Your task to perform on an android device: see tabs open on other devices in the chrome app Image 0: 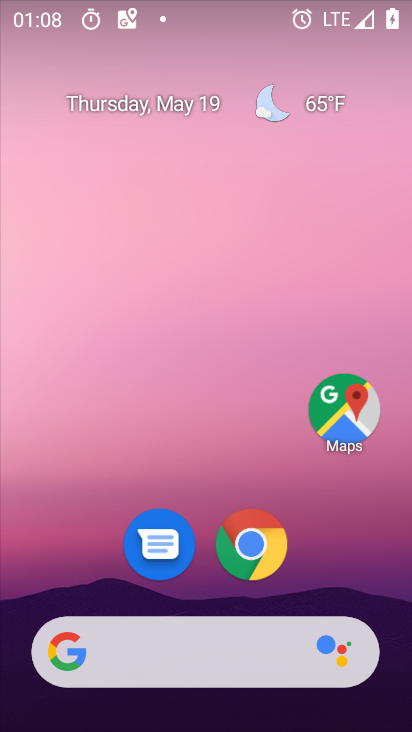
Step 0: drag from (374, 582) to (367, 201)
Your task to perform on an android device: see tabs open on other devices in the chrome app Image 1: 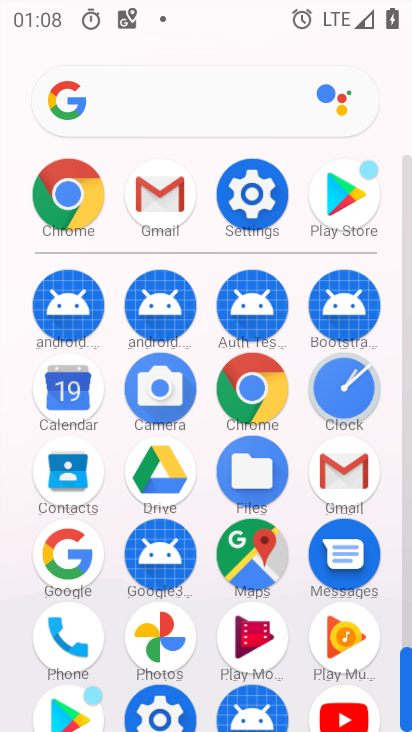
Step 1: drag from (291, 536) to (287, 270)
Your task to perform on an android device: see tabs open on other devices in the chrome app Image 2: 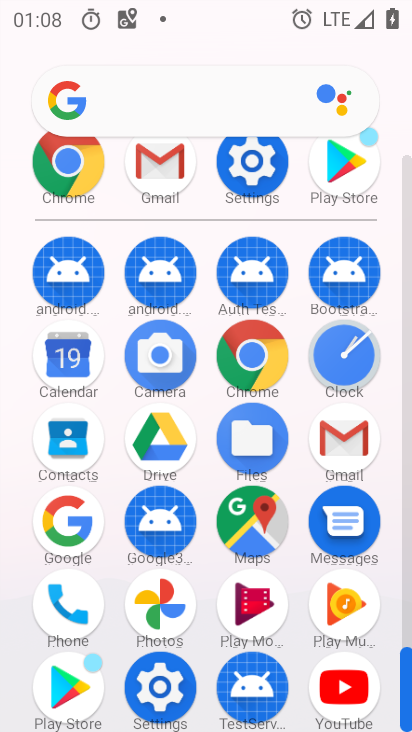
Step 2: drag from (300, 271) to (288, 381)
Your task to perform on an android device: see tabs open on other devices in the chrome app Image 3: 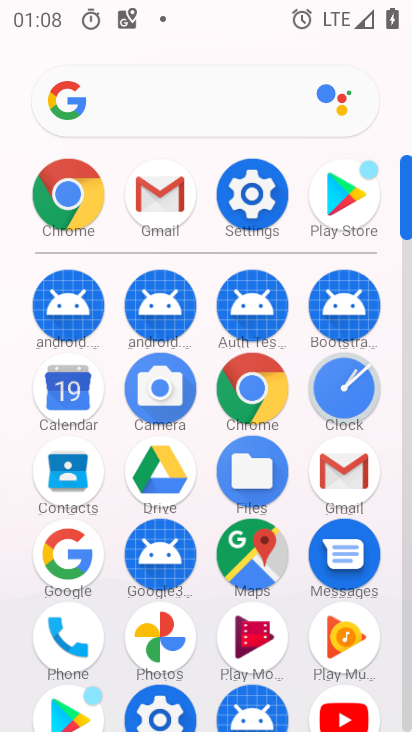
Step 3: drag from (293, 591) to (295, 455)
Your task to perform on an android device: see tabs open on other devices in the chrome app Image 4: 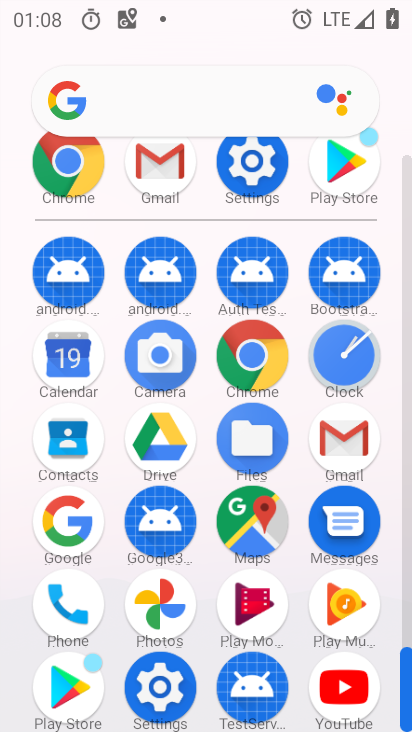
Step 4: click (163, 613)
Your task to perform on an android device: see tabs open on other devices in the chrome app Image 5: 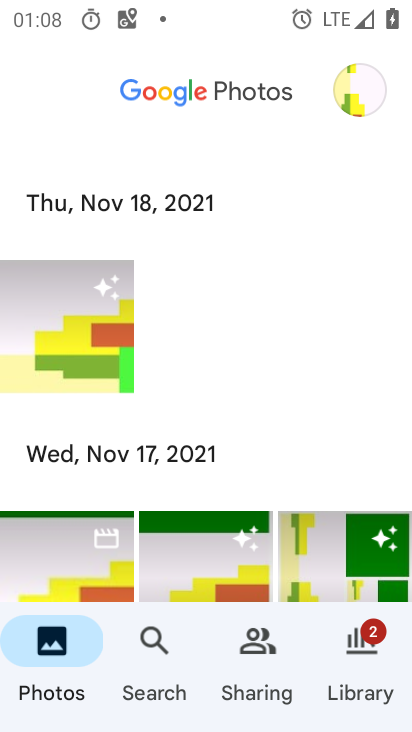
Step 5: click (369, 92)
Your task to perform on an android device: see tabs open on other devices in the chrome app Image 6: 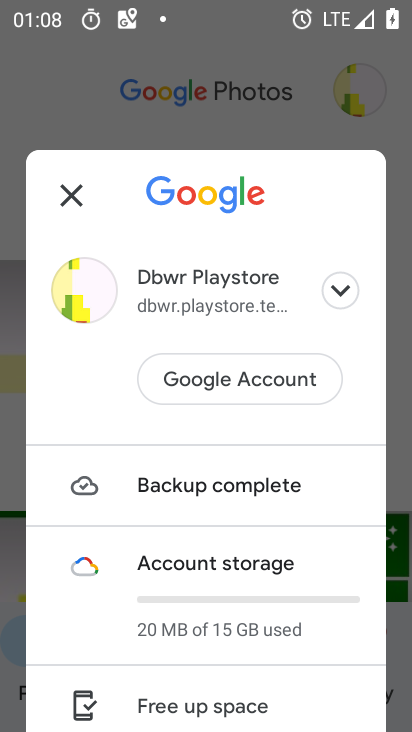
Step 6: drag from (275, 583) to (279, 469)
Your task to perform on an android device: see tabs open on other devices in the chrome app Image 7: 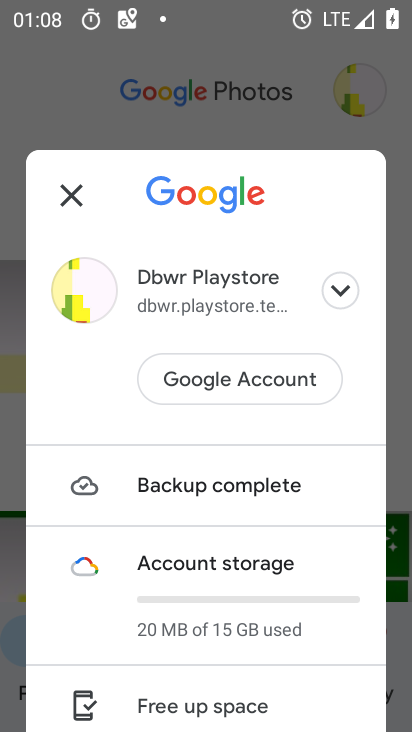
Step 7: drag from (271, 623) to (288, 305)
Your task to perform on an android device: see tabs open on other devices in the chrome app Image 8: 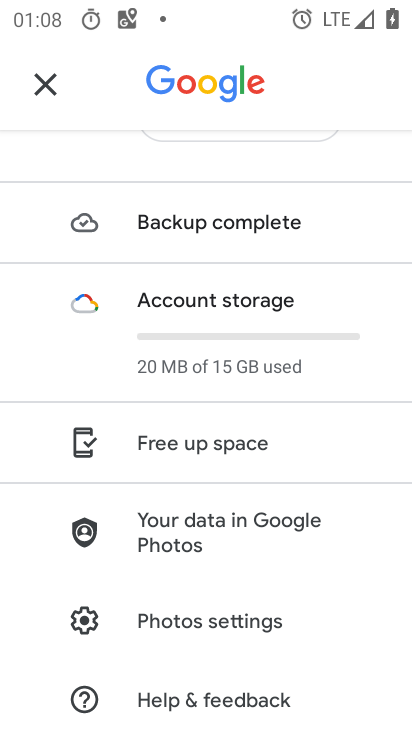
Step 8: drag from (332, 639) to (341, 401)
Your task to perform on an android device: see tabs open on other devices in the chrome app Image 9: 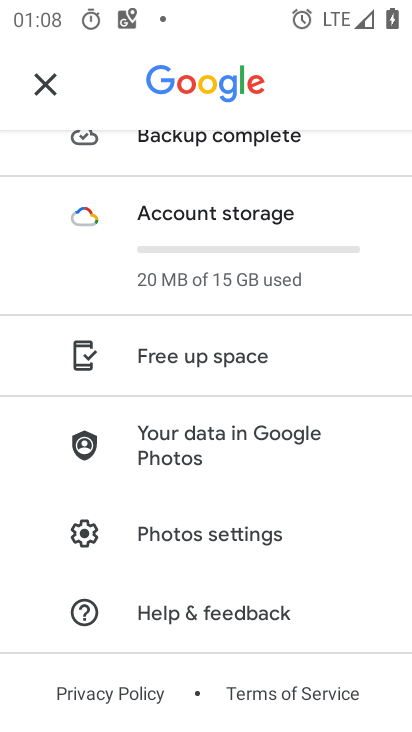
Step 9: drag from (342, 267) to (337, 508)
Your task to perform on an android device: see tabs open on other devices in the chrome app Image 10: 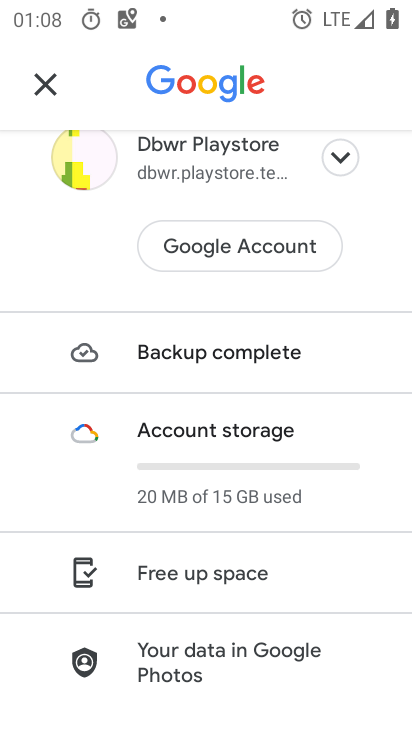
Step 10: click (58, 79)
Your task to perform on an android device: see tabs open on other devices in the chrome app Image 11: 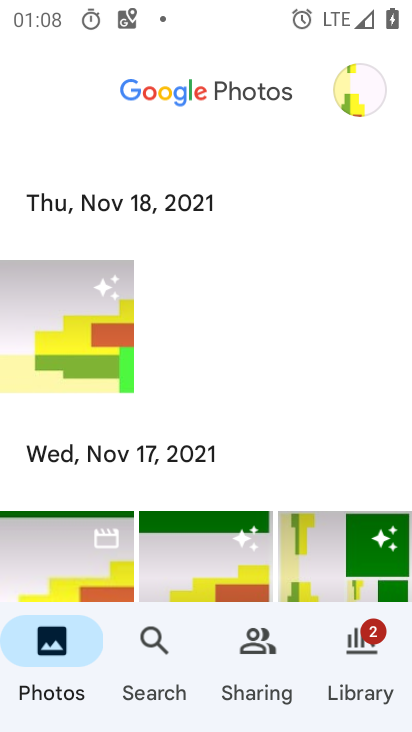
Step 11: click (354, 679)
Your task to perform on an android device: see tabs open on other devices in the chrome app Image 12: 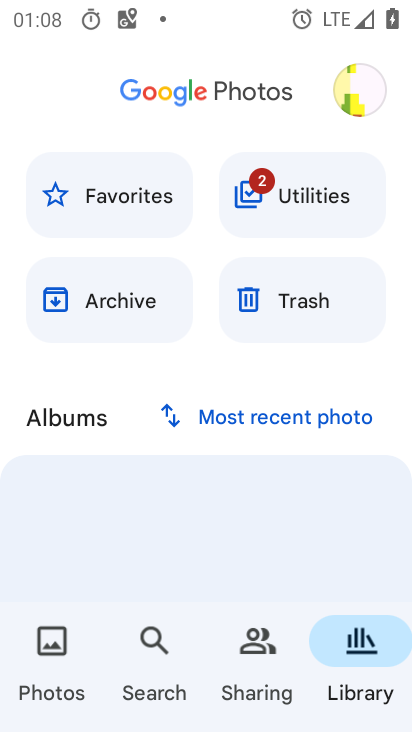
Step 12: task complete